Your task to perform on an android device: Toggle the flashlight Image 0: 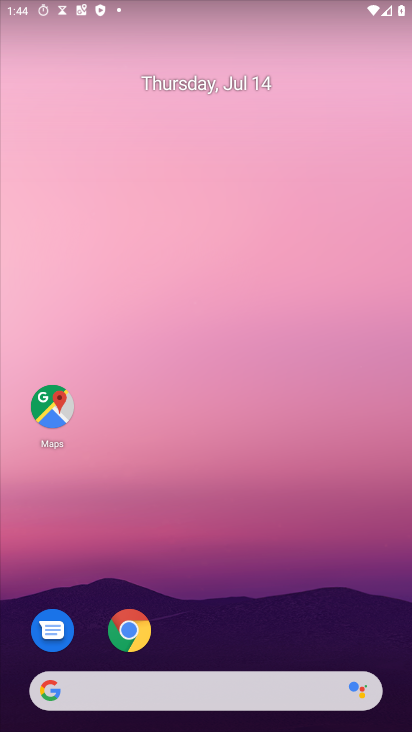
Step 0: drag from (199, 13) to (167, 534)
Your task to perform on an android device: Toggle the flashlight Image 1: 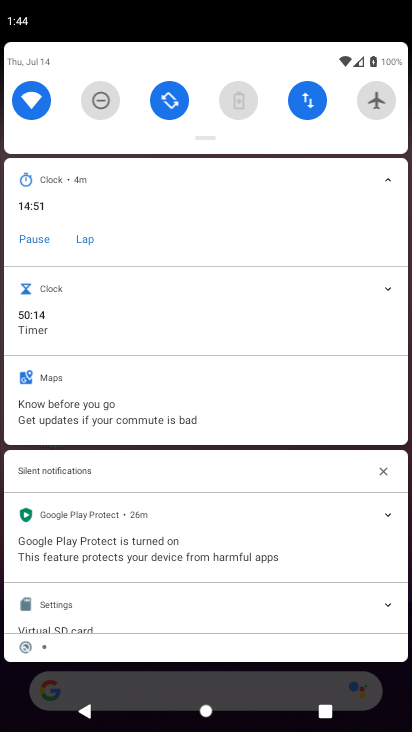
Step 1: task complete